Your task to perform on an android device: Go to Maps Image 0: 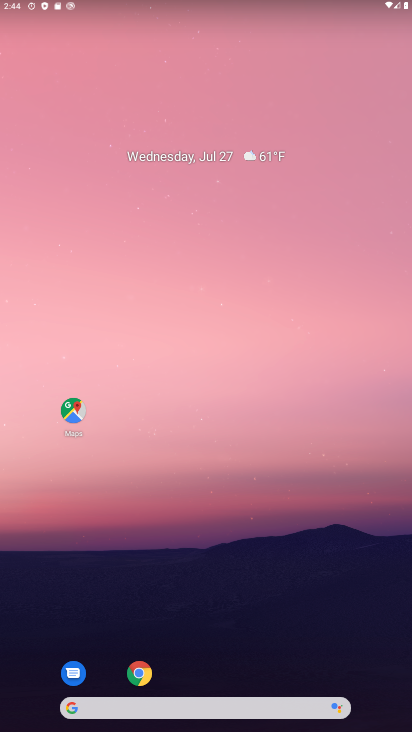
Step 0: click (84, 406)
Your task to perform on an android device: Go to Maps Image 1: 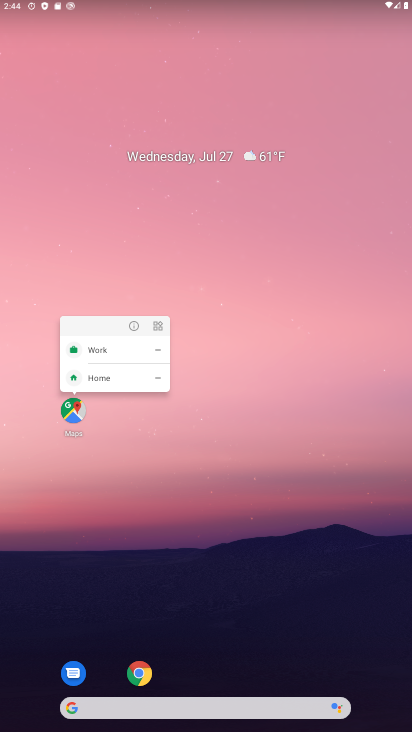
Step 1: click (80, 418)
Your task to perform on an android device: Go to Maps Image 2: 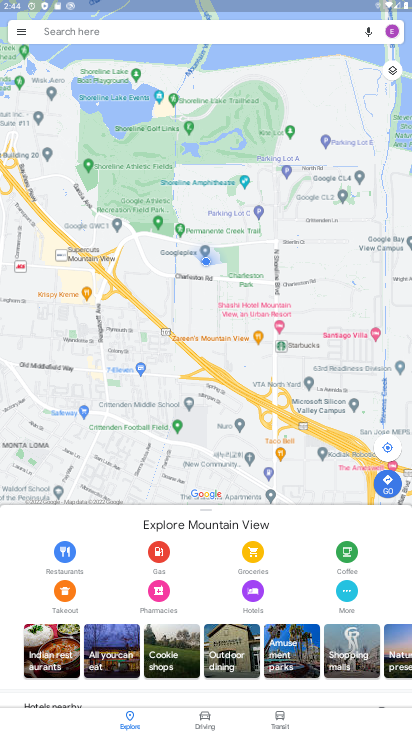
Step 2: task complete